Your task to perform on an android device: Check the weather Image 0: 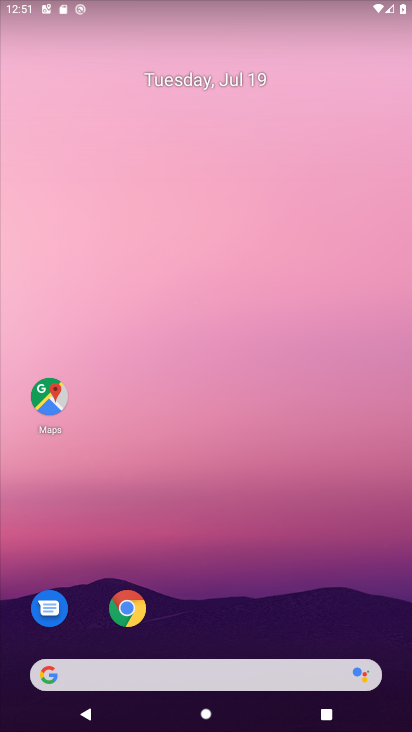
Step 0: drag from (244, 525) to (297, 144)
Your task to perform on an android device: Check the weather Image 1: 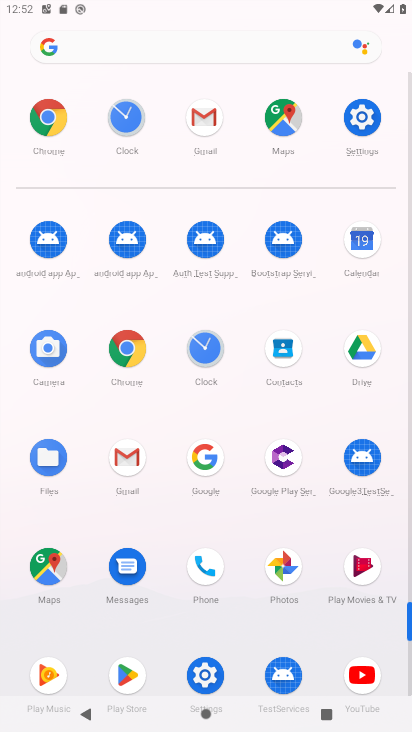
Step 1: click (123, 368)
Your task to perform on an android device: Check the weather Image 2: 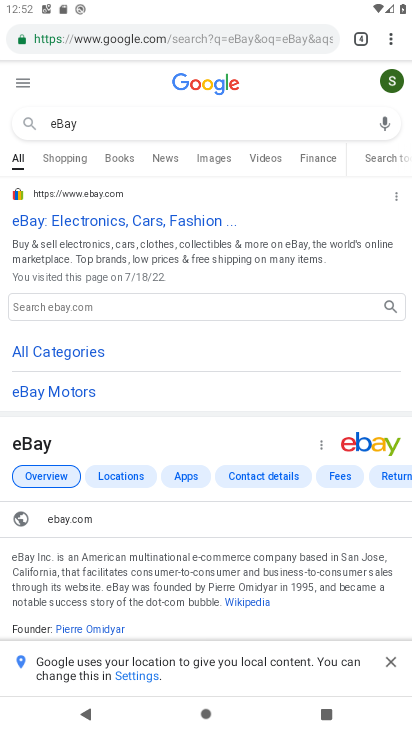
Step 2: click (100, 128)
Your task to perform on an android device: Check the weather Image 3: 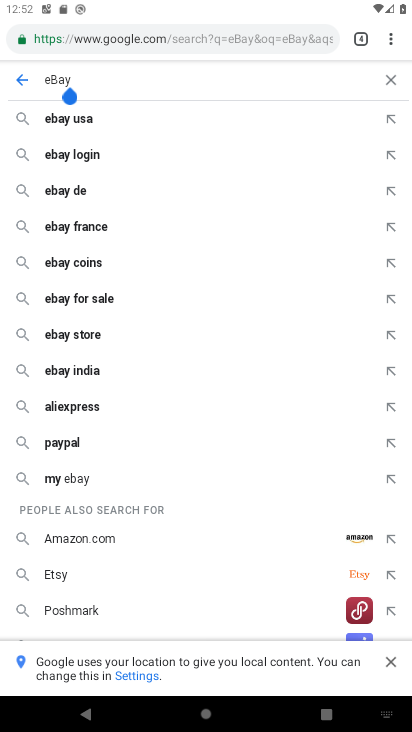
Step 3: click (385, 80)
Your task to perform on an android device: Check the weather Image 4: 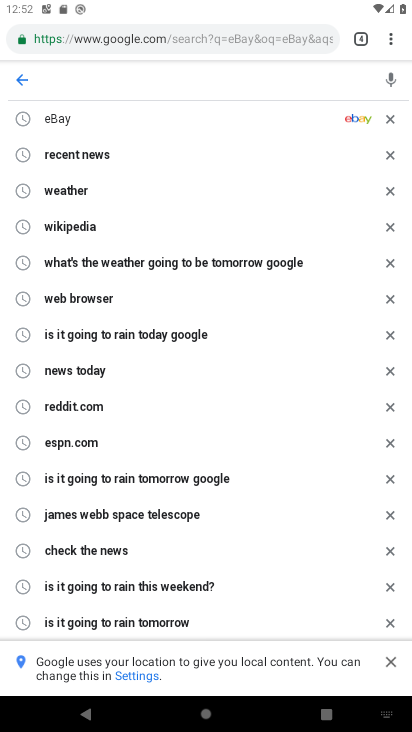
Step 4: click (93, 85)
Your task to perform on an android device: Check the weather Image 5: 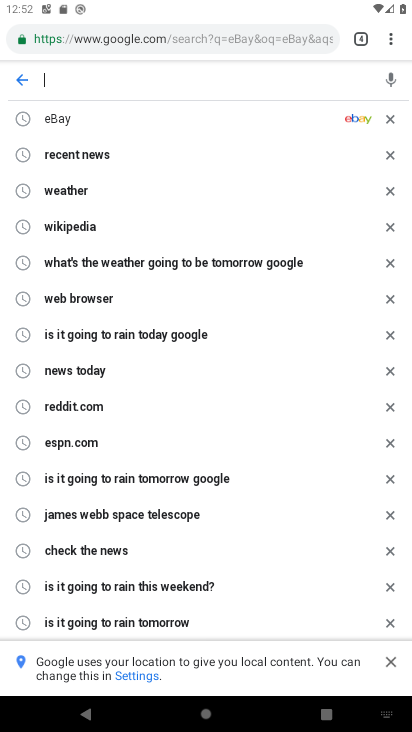
Step 5: type "weather"
Your task to perform on an android device: Check the weather Image 6: 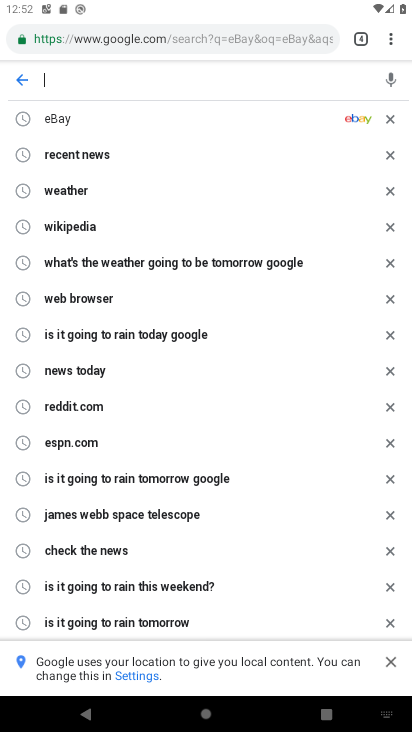
Step 6: type ""
Your task to perform on an android device: Check the weather Image 7: 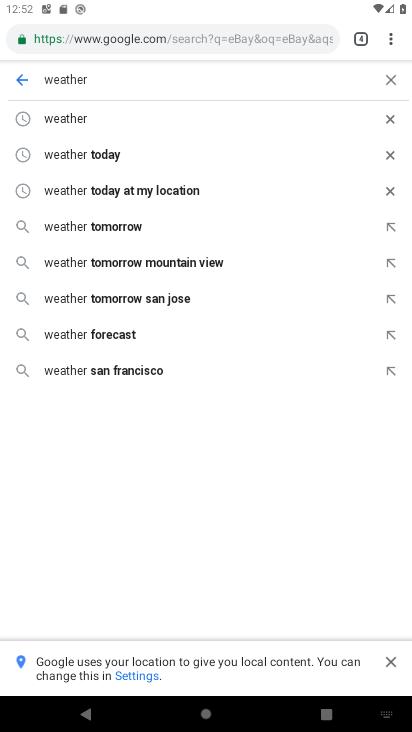
Step 7: click (105, 118)
Your task to perform on an android device: Check the weather Image 8: 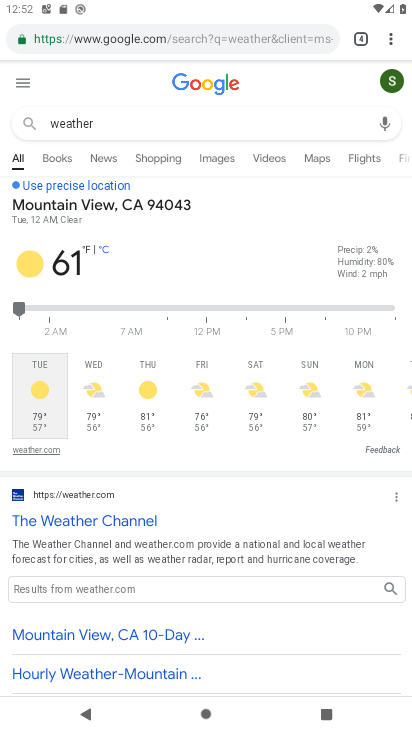
Step 8: task complete